Your task to perform on an android device: Open sound settings Image 0: 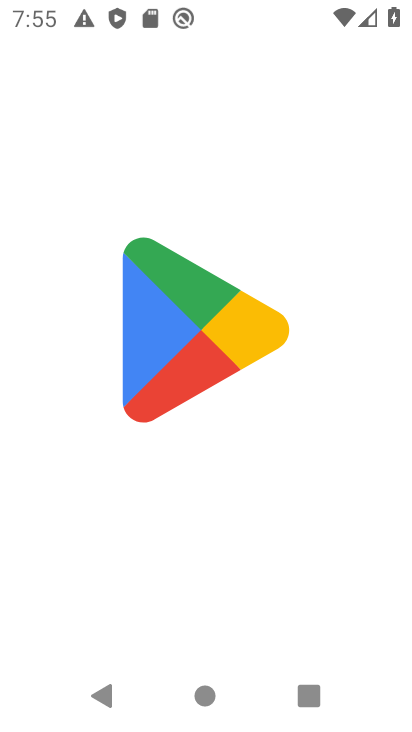
Step 0: drag from (386, 697) to (343, 111)
Your task to perform on an android device: Open sound settings Image 1: 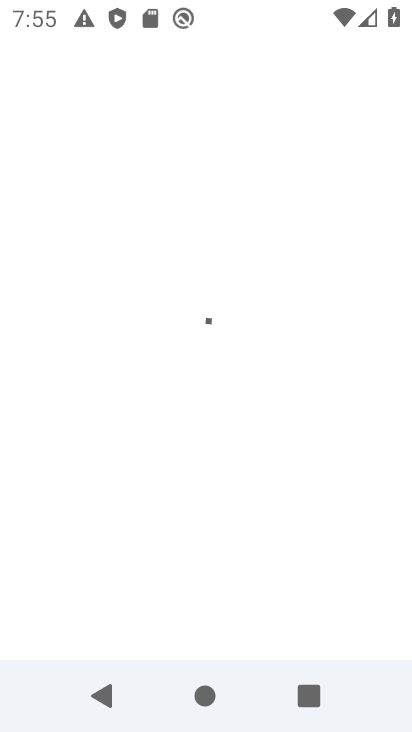
Step 1: press home button
Your task to perform on an android device: Open sound settings Image 2: 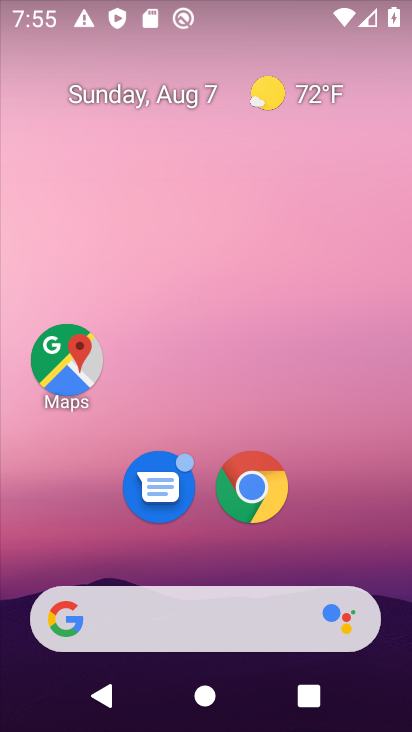
Step 2: drag from (390, 716) to (316, 48)
Your task to perform on an android device: Open sound settings Image 3: 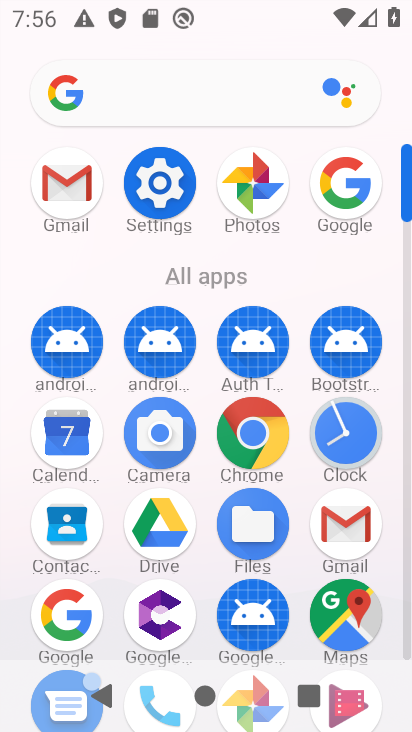
Step 3: click (159, 192)
Your task to perform on an android device: Open sound settings Image 4: 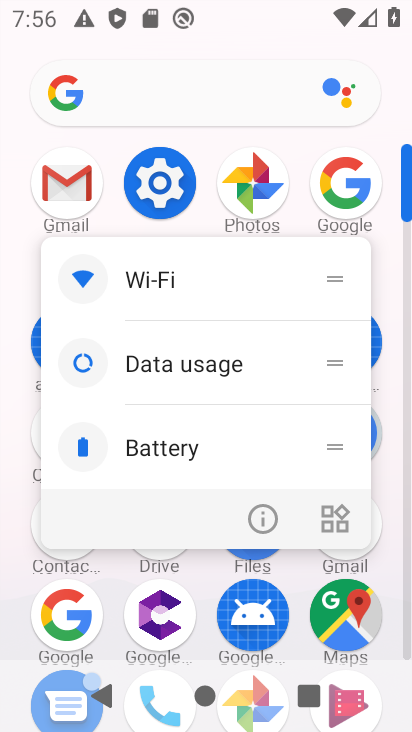
Step 4: press back button
Your task to perform on an android device: Open sound settings Image 5: 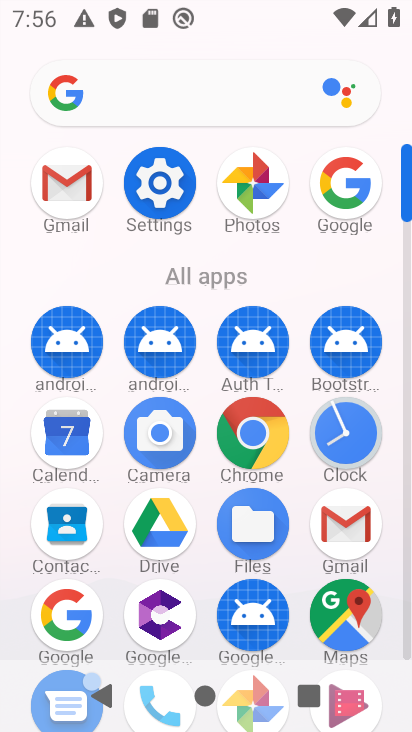
Step 5: click (160, 182)
Your task to perform on an android device: Open sound settings Image 6: 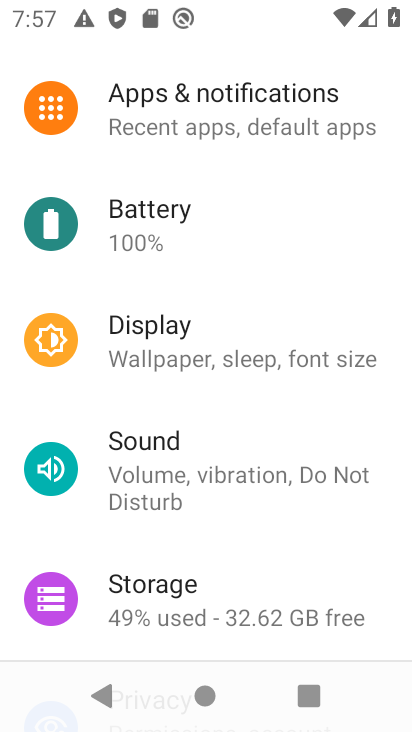
Step 6: click (152, 465)
Your task to perform on an android device: Open sound settings Image 7: 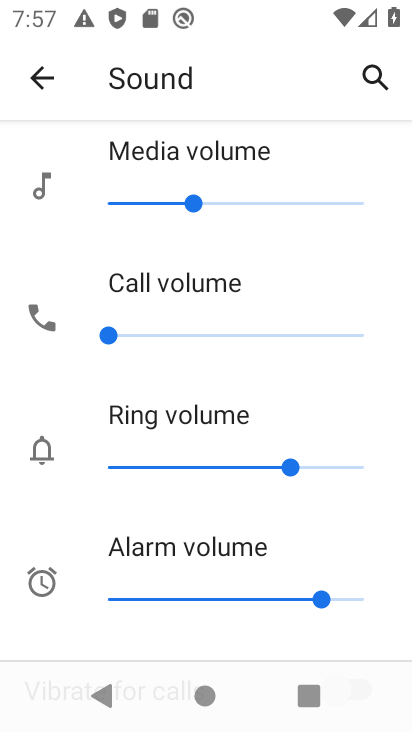
Step 7: task complete